Your task to perform on an android device: turn on data saver in the chrome app Image 0: 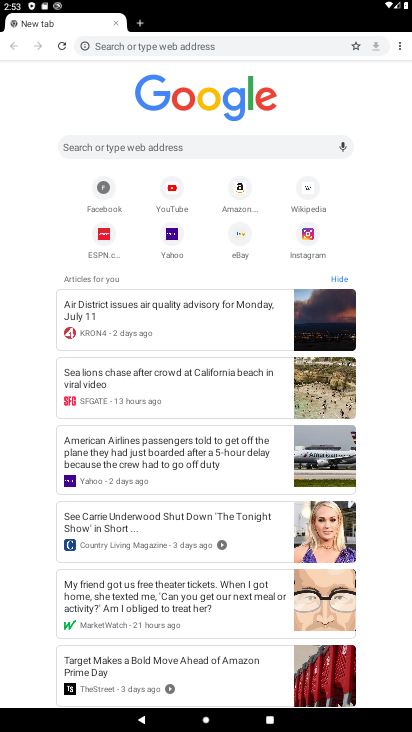
Step 0: drag from (398, 46) to (344, 211)
Your task to perform on an android device: turn on data saver in the chrome app Image 1: 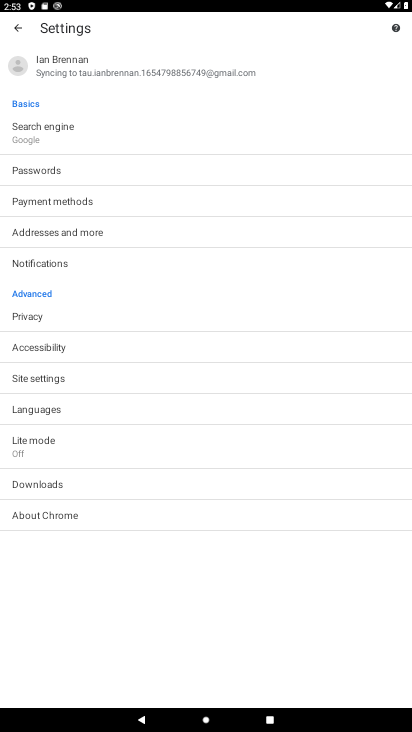
Step 1: click (82, 448)
Your task to perform on an android device: turn on data saver in the chrome app Image 2: 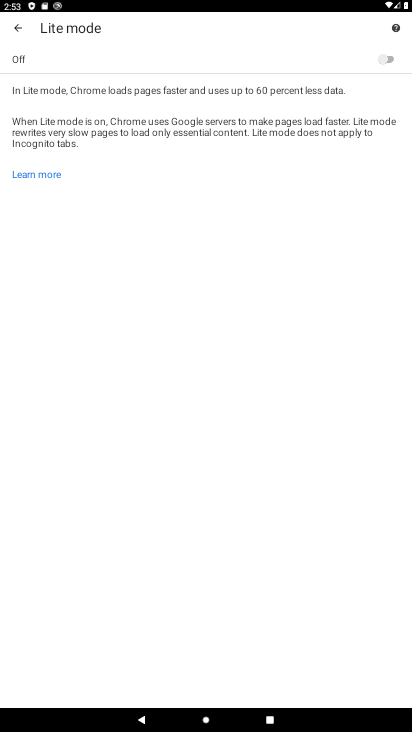
Step 2: click (386, 58)
Your task to perform on an android device: turn on data saver in the chrome app Image 3: 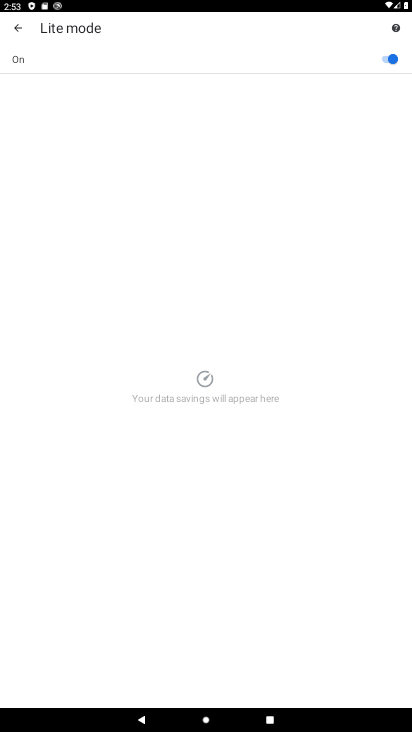
Step 3: task complete